Your task to perform on an android device: Open Google Chrome and open the bookmarks view Image 0: 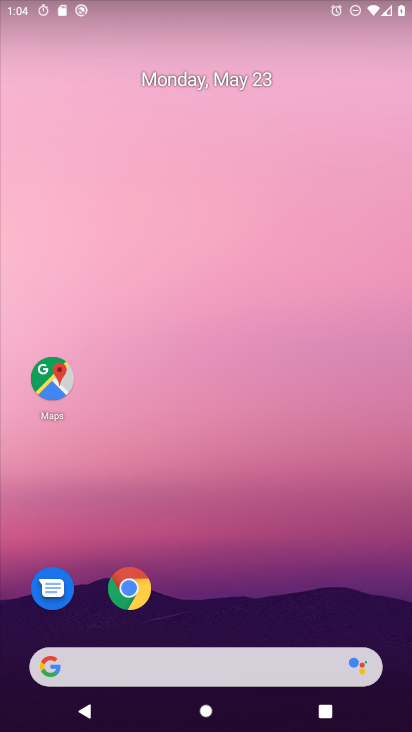
Step 0: drag from (261, 694) to (207, 58)
Your task to perform on an android device: Open Google Chrome and open the bookmarks view Image 1: 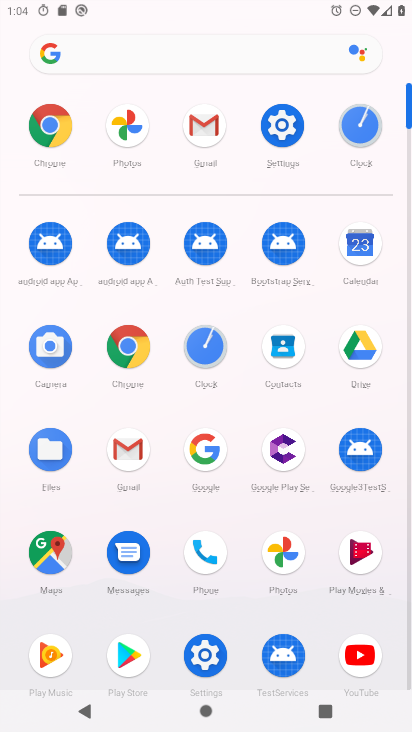
Step 1: click (140, 335)
Your task to perform on an android device: Open Google Chrome and open the bookmarks view Image 2: 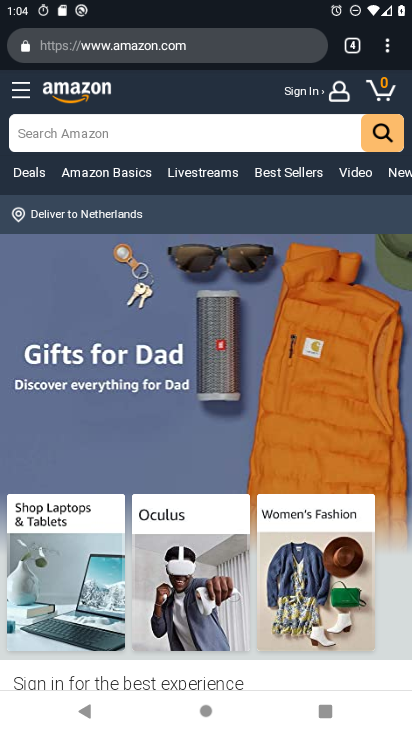
Step 2: click (382, 43)
Your task to perform on an android device: Open Google Chrome and open the bookmarks view Image 3: 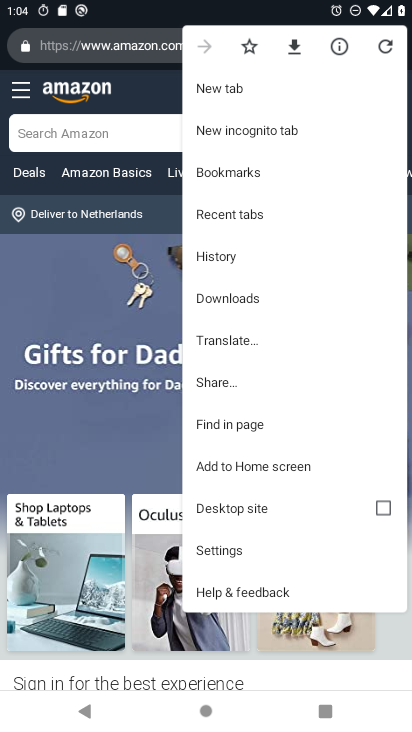
Step 3: click (248, 169)
Your task to perform on an android device: Open Google Chrome and open the bookmarks view Image 4: 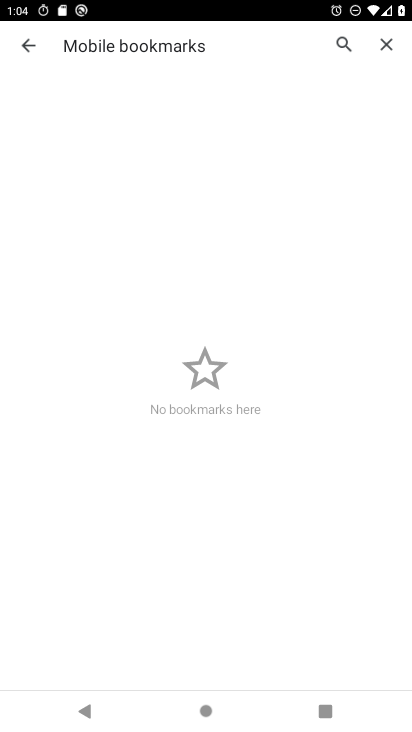
Step 4: task complete